Your task to perform on an android device: uninstall "Expedia: Hotels, Flights & Car" Image 0: 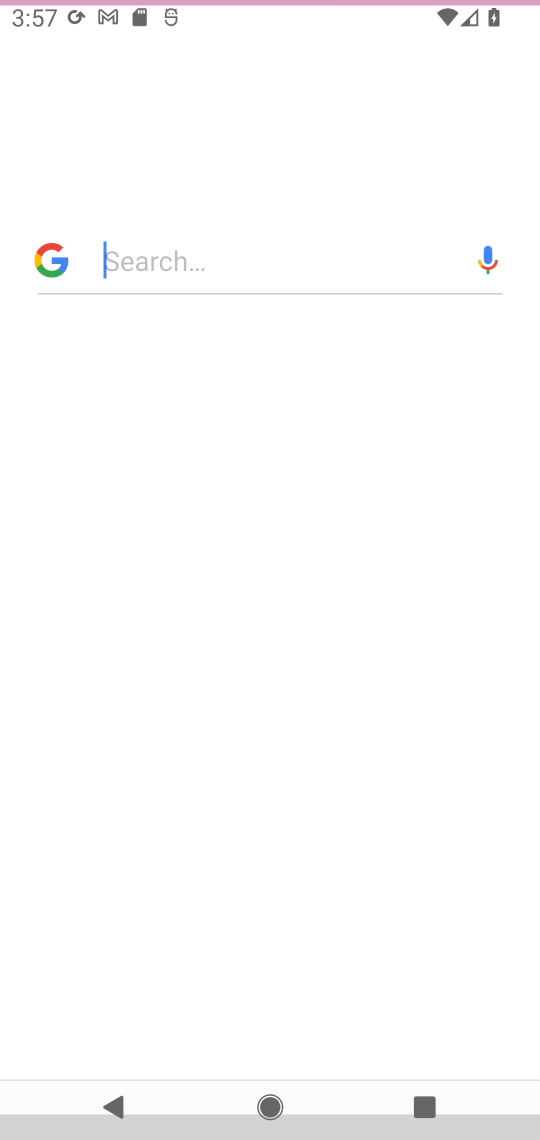
Step 0: press home button
Your task to perform on an android device: uninstall "Expedia: Hotels, Flights & Car" Image 1: 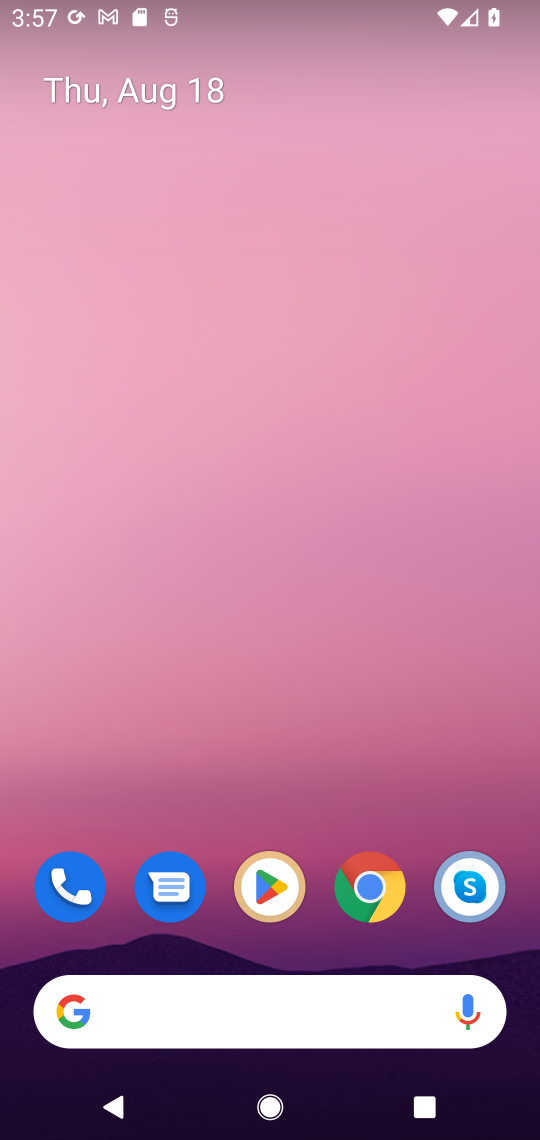
Step 1: click (270, 880)
Your task to perform on an android device: uninstall "Expedia: Hotels, Flights & Car" Image 2: 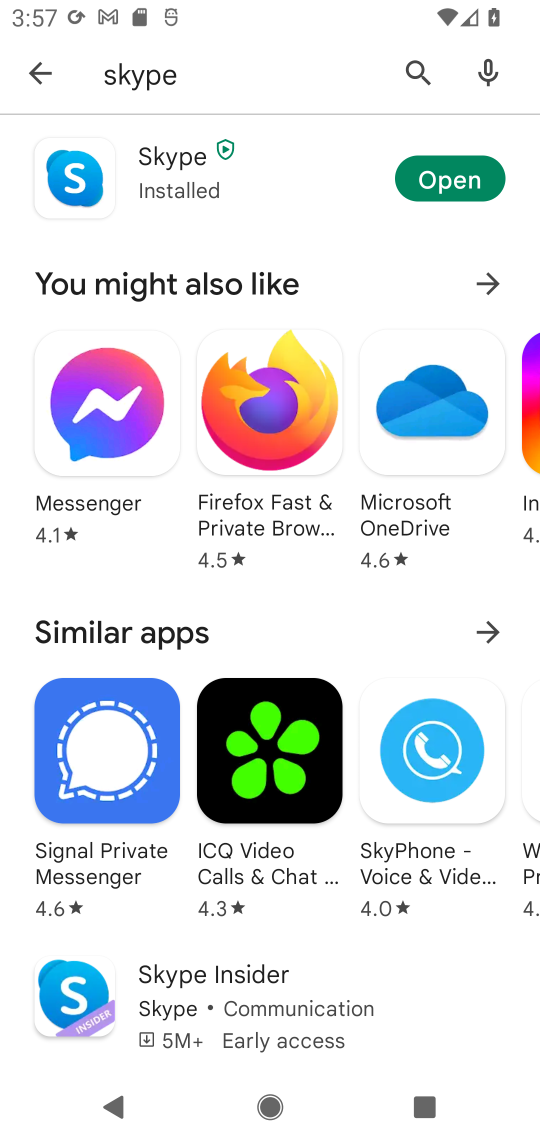
Step 2: click (418, 65)
Your task to perform on an android device: uninstall "Expedia: Hotels, Flights & Car" Image 3: 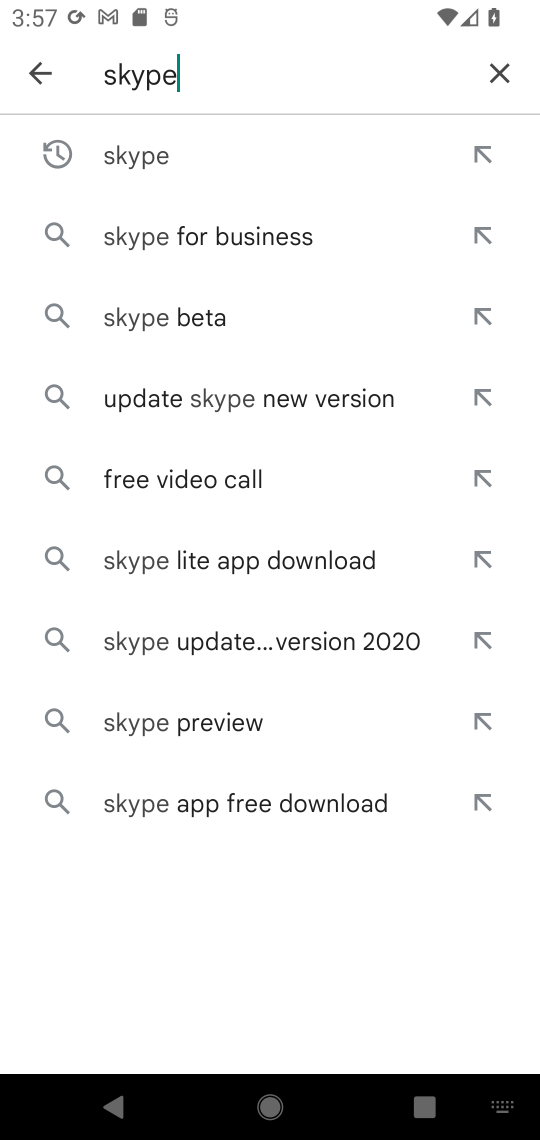
Step 3: click (497, 76)
Your task to perform on an android device: uninstall "Expedia: Hotels, Flights & Car" Image 4: 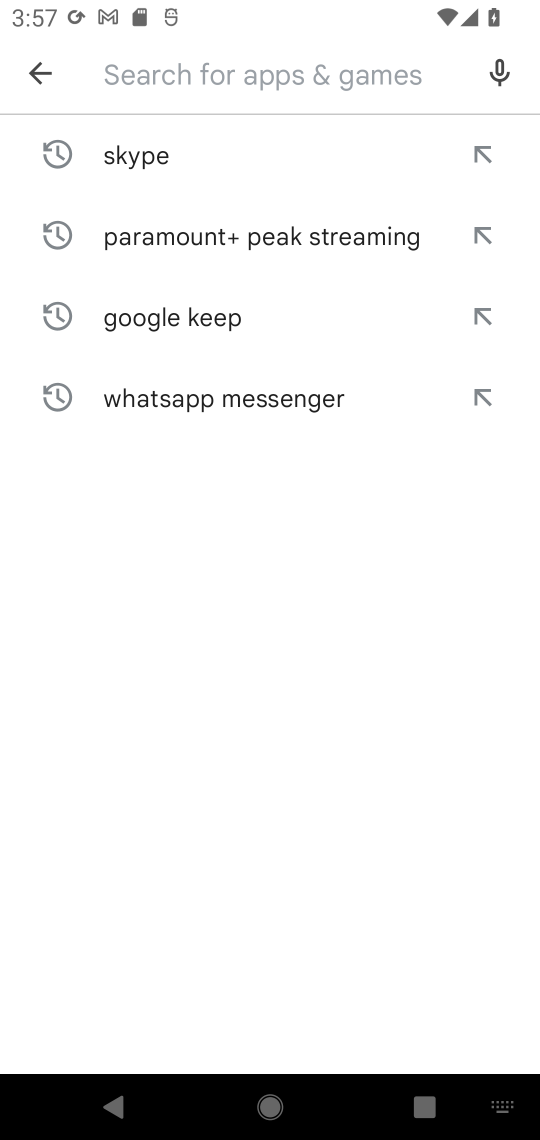
Step 4: type "kinsman"
Your task to perform on an android device: uninstall "Expedia: Hotels, Flights & Car" Image 5: 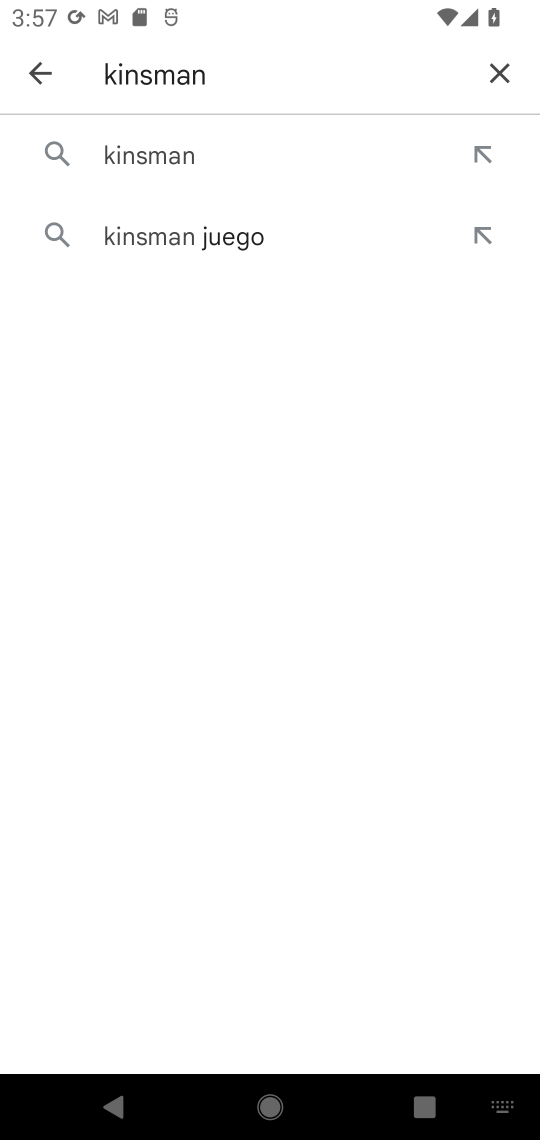
Step 5: type "Expedia: Hotels, Flights & Car"
Your task to perform on an android device: uninstall "Expedia: Hotels, Flights & Car" Image 6: 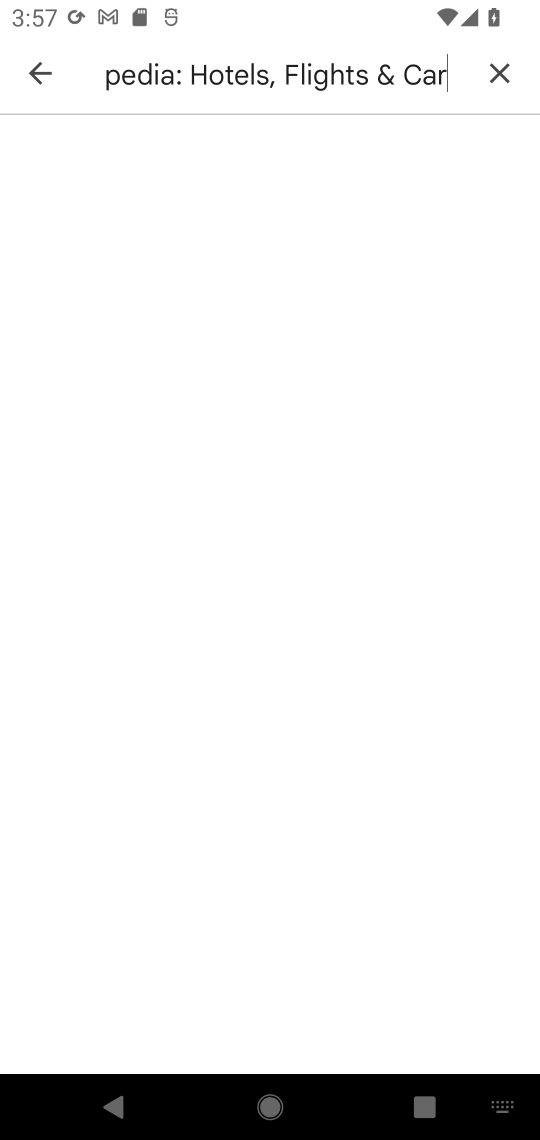
Step 6: click (497, 71)
Your task to perform on an android device: uninstall "Expedia: Hotels, Flights & Car" Image 7: 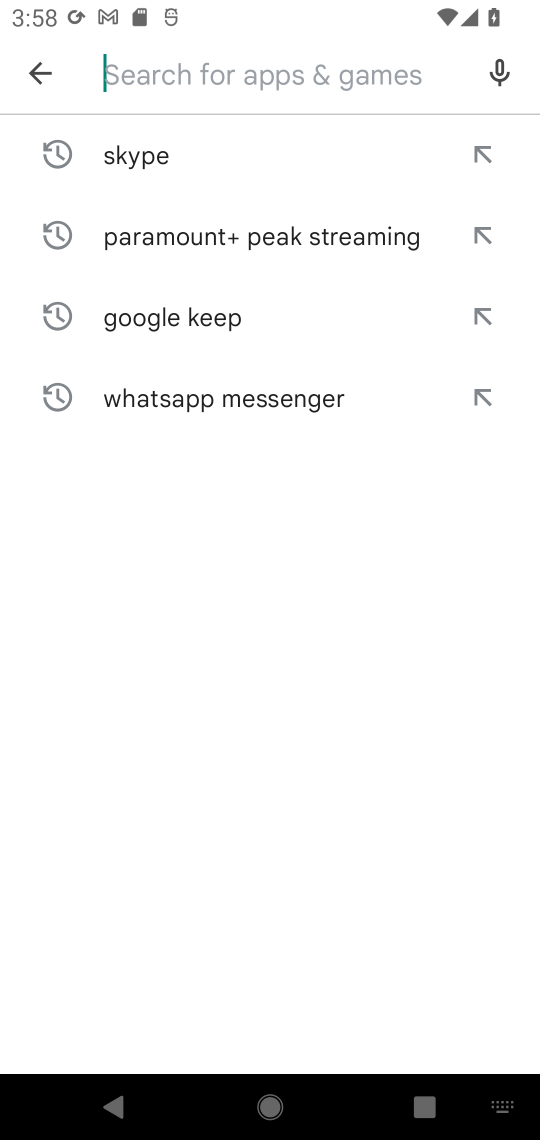
Step 7: type "Expedia: Hotels, Flights & Car"
Your task to perform on an android device: uninstall "Expedia: Hotels, Flights & Car" Image 8: 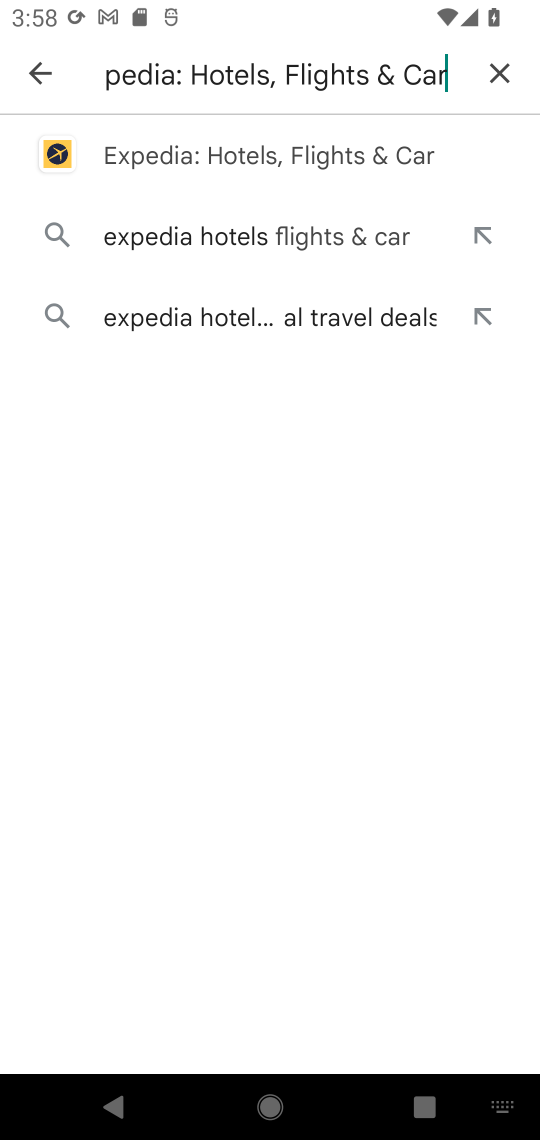
Step 8: click (206, 150)
Your task to perform on an android device: uninstall "Expedia: Hotels, Flights & Car" Image 9: 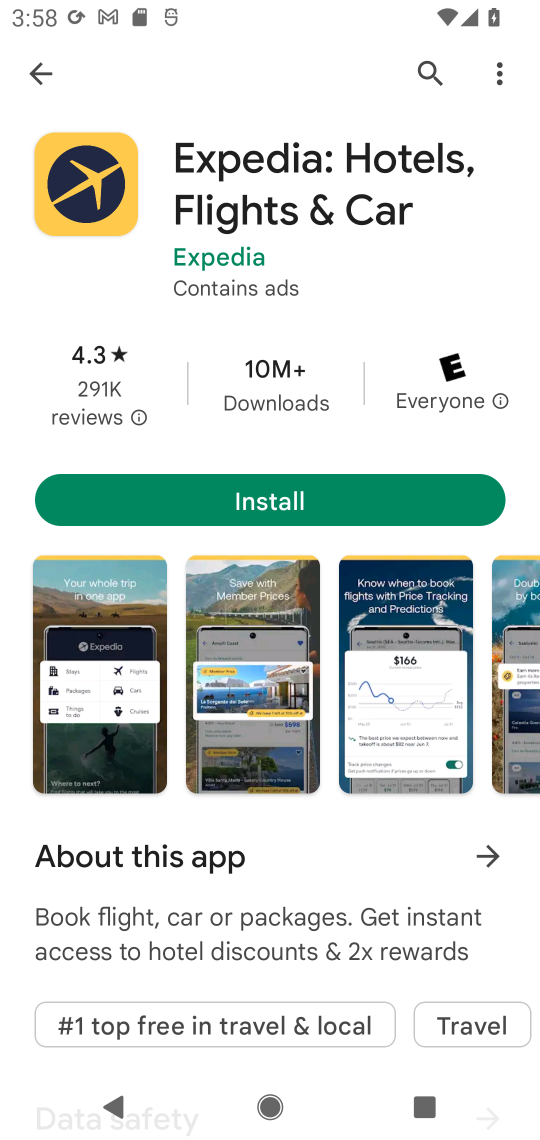
Step 9: task complete